Your task to perform on an android device: Open calendar and show me the second week of next month Image 0: 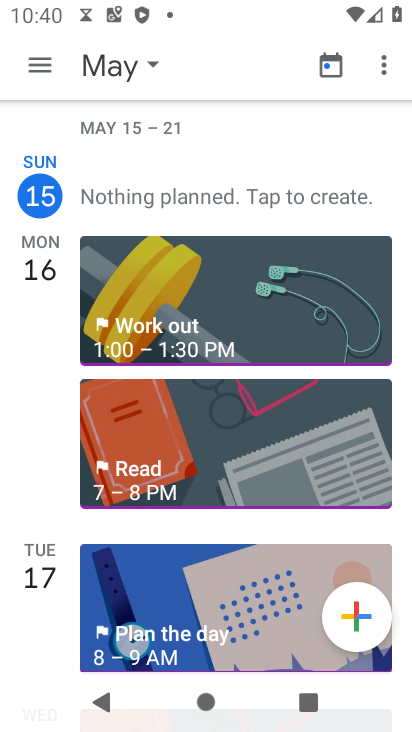
Step 0: press back button
Your task to perform on an android device: Open calendar and show me the second week of next month Image 1: 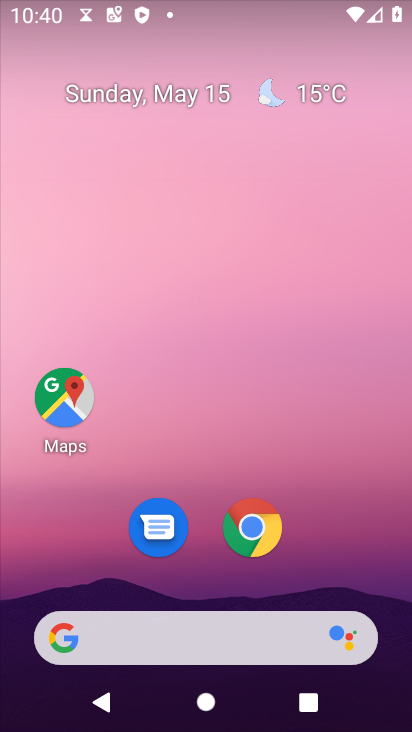
Step 1: drag from (343, 550) to (245, 115)
Your task to perform on an android device: Open calendar and show me the second week of next month Image 2: 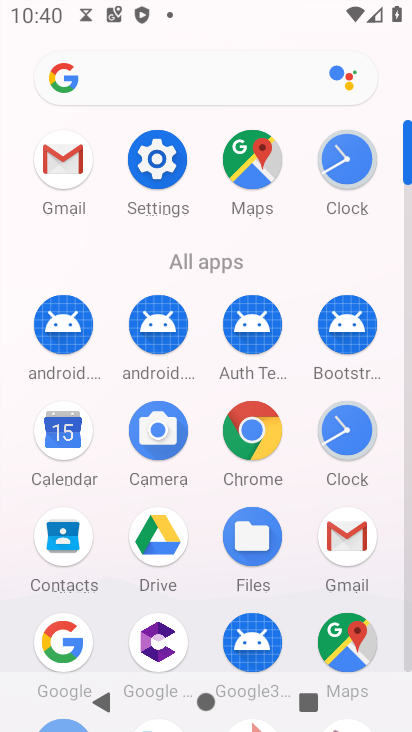
Step 2: click (64, 432)
Your task to perform on an android device: Open calendar and show me the second week of next month Image 3: 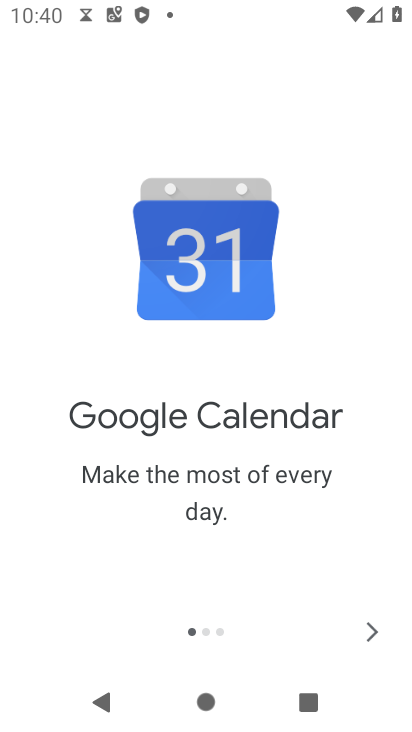
Step 3: click (374, 632)
Your task to perform on an android device: Open calendar and show me the second week of next month Image 4: 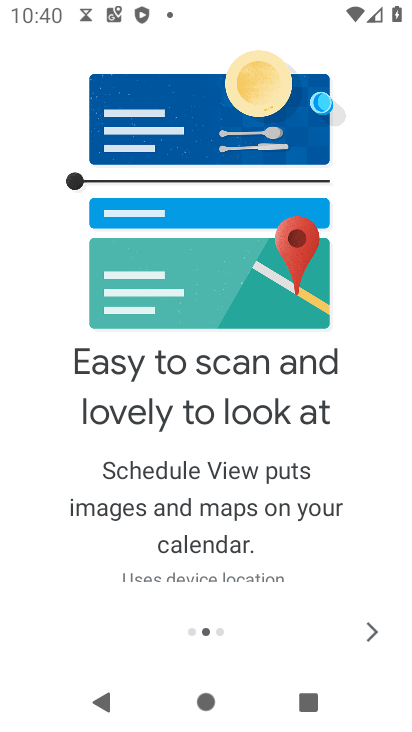
Step 4: click (374, 631)
Your task to perform on an android device: Open calendar and show me the second week of next month Image 5: 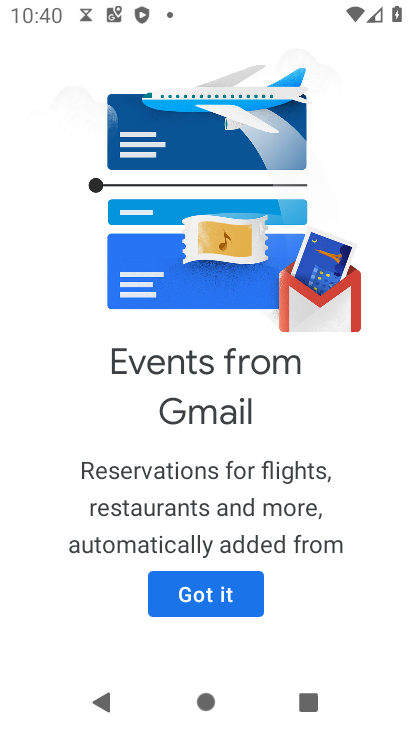
Step 5: click (210, 596)
Your task to perform on an android device: Open calendar and show me the second week of next month Image 6: 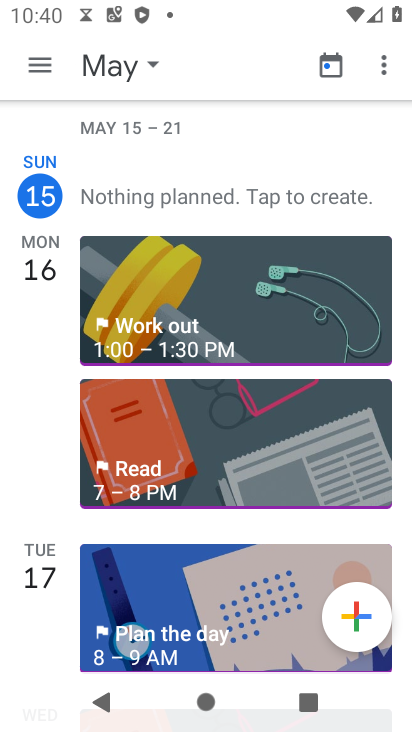
Step 6: click (155, 62)
Your task to perform on an android device: Open calendar and show me the second week of next month Image 7: 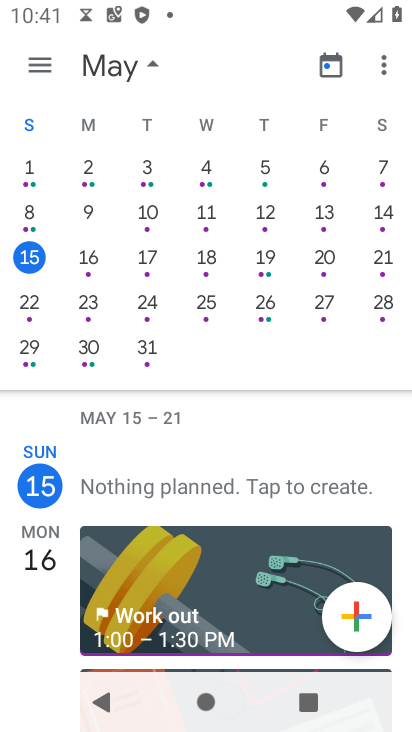
Step 7: drag from (361, 246) to (5, 291)
Your task to perform on an android device: Open calendar and show me the second week of next month Image 8: 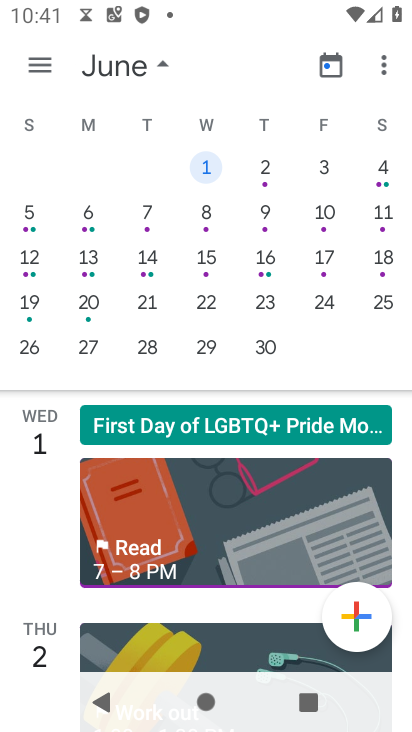
Step 8: click (89, 259)
Your task to perform on an android device: Open calendar and show me the second week of next month Image 9: 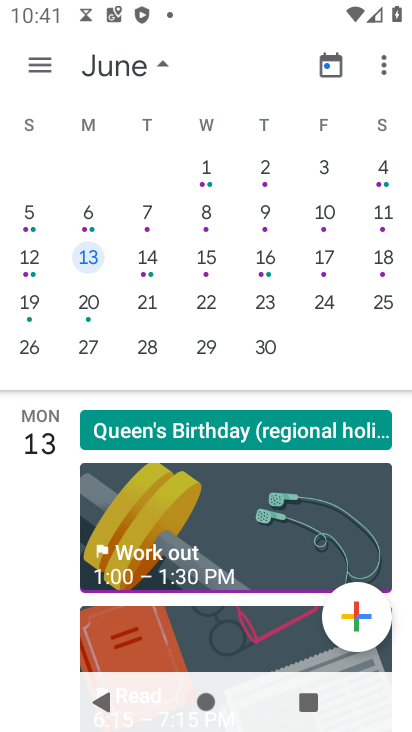
Step 9: click (36, 65)
Your task to perform on an android device: Open calendar and show me the second week of next month Image 10: 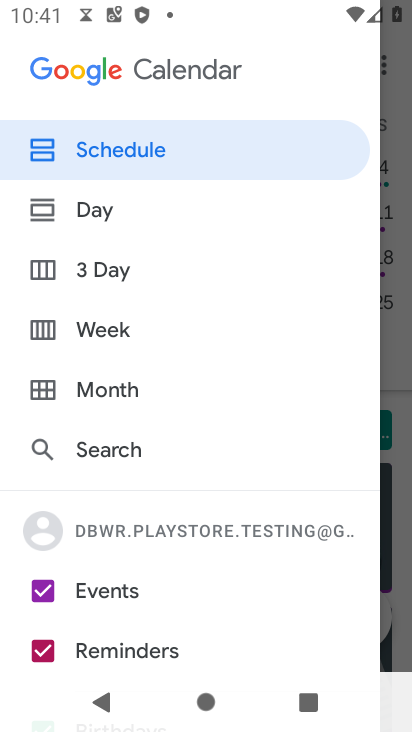
Step 10: click (115, 327)
Your task to perform on an android device: Open calendar and show me the second week of next month Image 11: 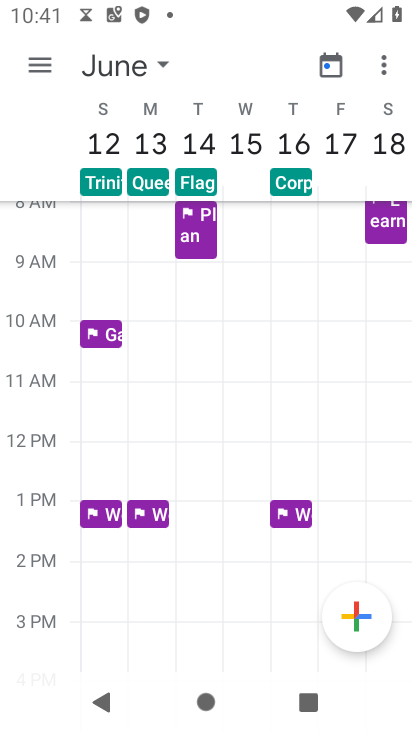
Step 11: task complete